Your task to perform on an android device: Open Google Chrome and click the shortcut for Amazon.com Image 0: 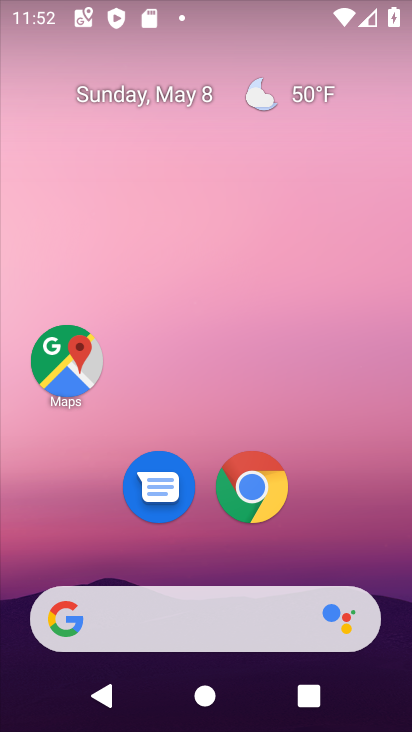
Step 0: click (265, 492)
Your task to perform on an android device: Open Google Chrome and click the shortcut for Amazon.com Image 1: 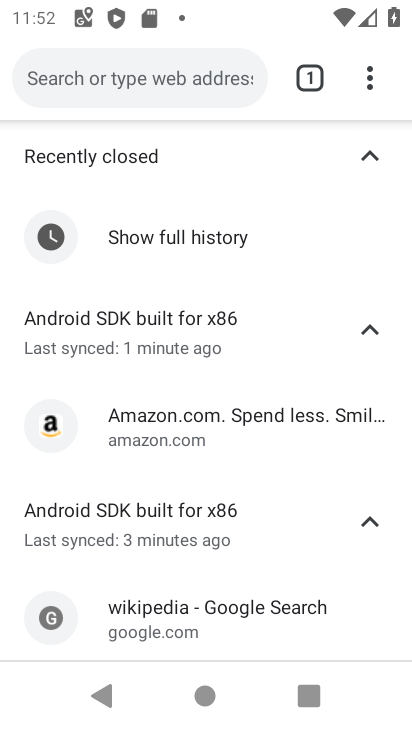
Step 1: click (319, 76)
Your task to perform on an android device: Open Google Chrome and click the shortcut for Amazon.com Image 2: 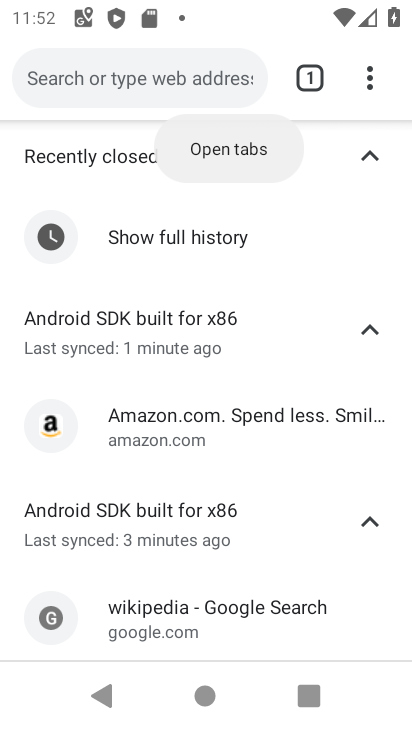
Step 2: drag from (369, 72) to (80, 143)
Your task to perform on an android device: Open Google Chrome and click the shortcut for Amazon.com Image 3: 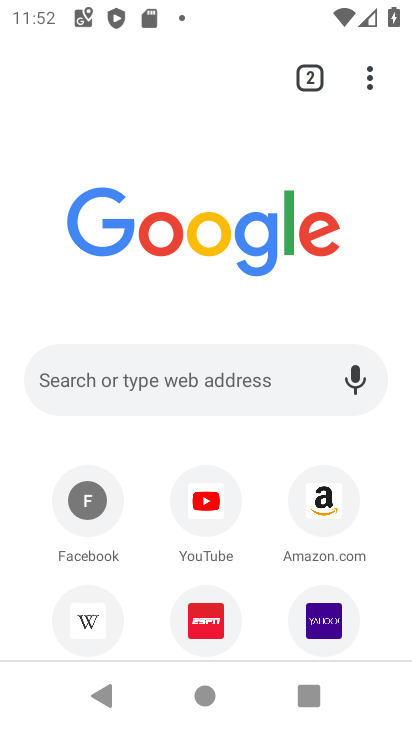
Step 3: click (342, 499)
Your task to perform on an android device: Open Google Chrome and click the shortcut for Amazon.com Image 4: 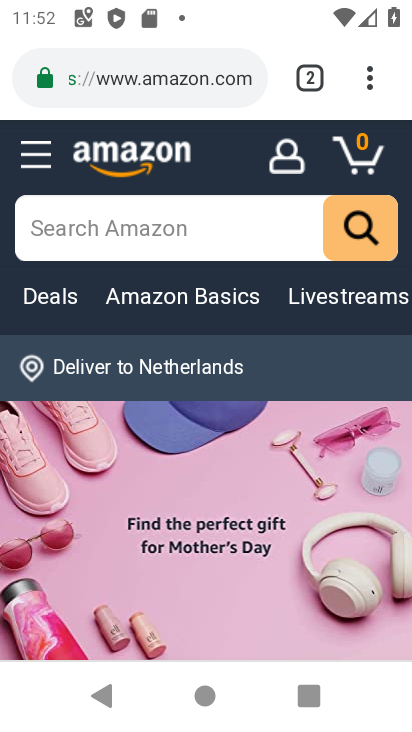
Step 4: task complete